Your task to perform on an android device: Open calendar and show me the first week of next month Image 0: 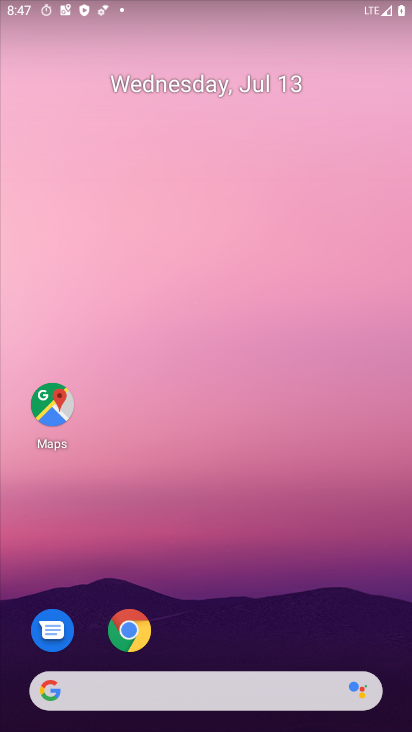
Step 0: drag from (328, 639) to (374, 149)
Your task to perform on an android device: Open calendar and show me the first week of next month Image 1: 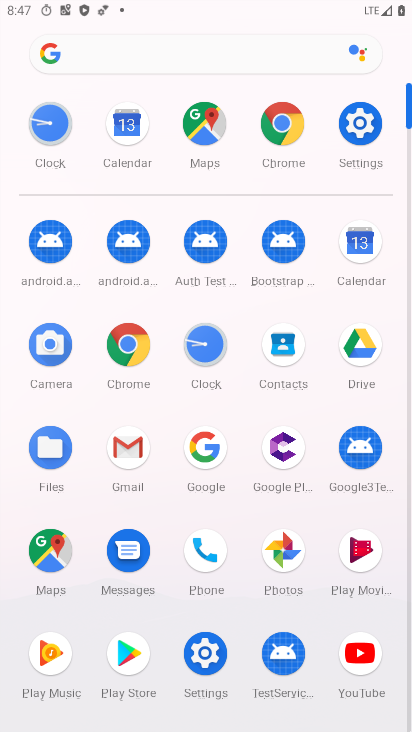
Step 1: click (362, 257)
Your task to perform on an android device: Open calendar and show me the first week of next month Image 2: 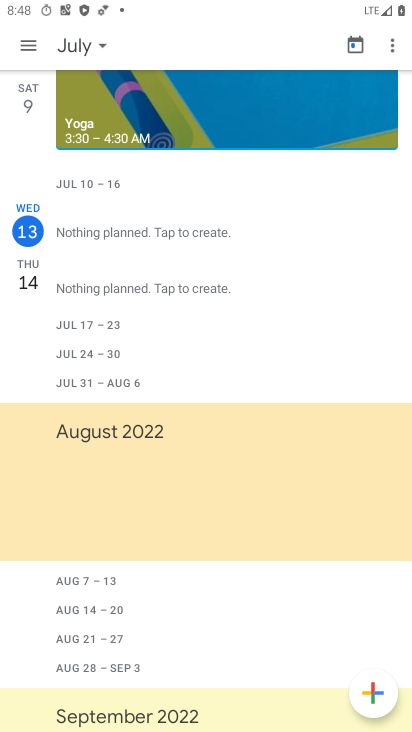
Step 2: drag from (351, 221) to (345, 319)
Your task to perform on an android device: Open calendar and show me the first week of next month Image 3: 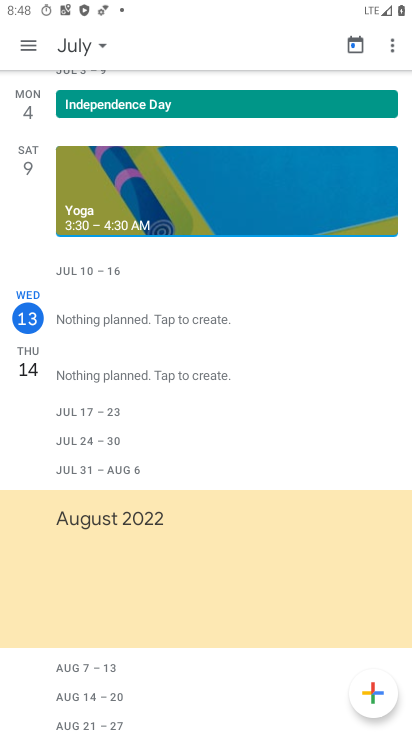
Step 3: click (107, 46)
Your task to perform on an android device: Open calendar and show me the first week of next month Image 4: 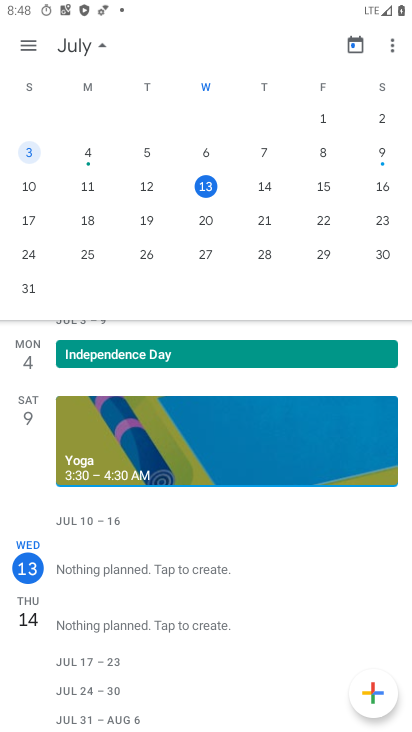
Step 4: task complete